Your task to perform on an android device: Open the calendar and show me this week's events? Image 0: 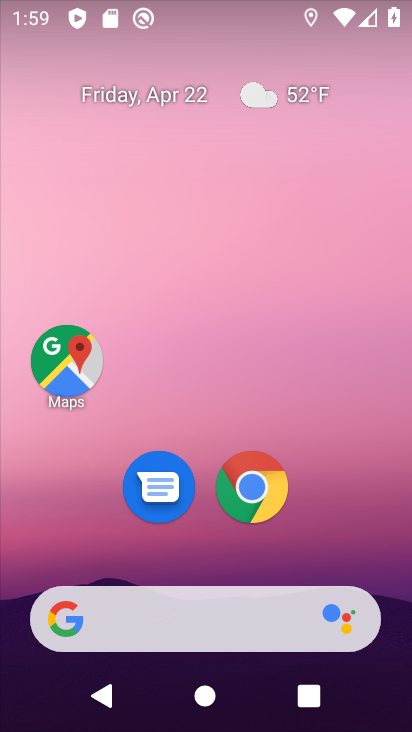
Step 0: drag from (194, 523) to (243, 166)
Your task to perform on an android device: Open the calendar and show me this week's events? Image 1: 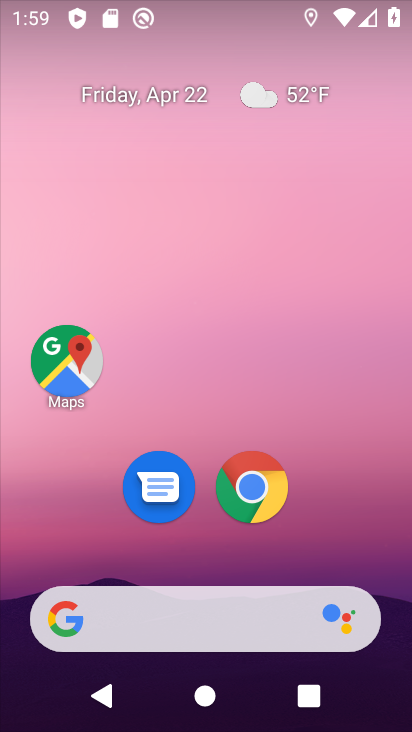
Step 1: drag from (218, 552) to (278, 10)
Your task to perform on an android device: Open the calendar and show me this week's events? Image 2: 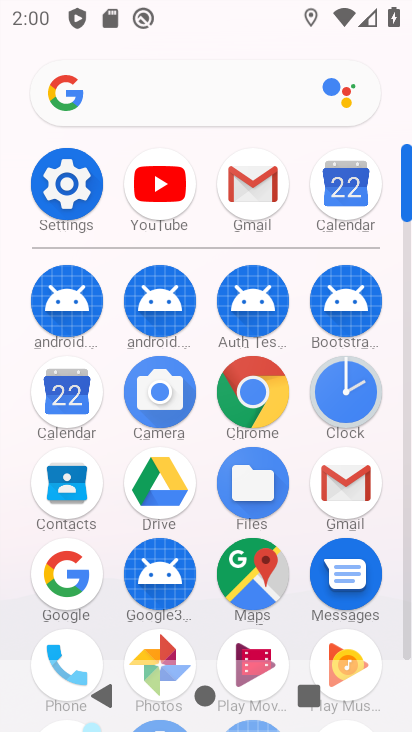
Step 2: click (70, 389)
Your task to perform on an android device: Open the calendar and show me this week's events? Image 3: 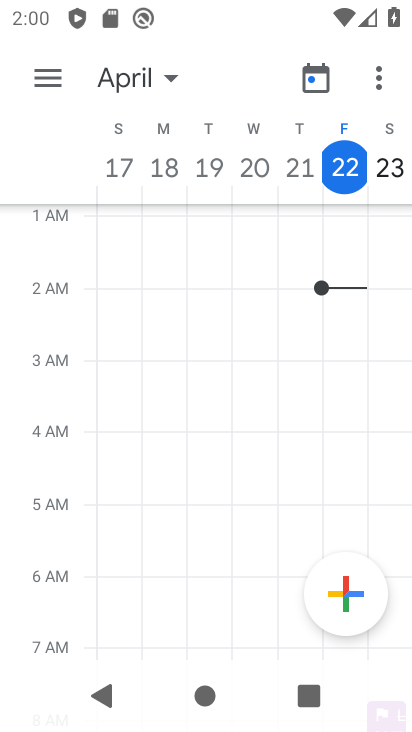
Step 3: task complete